Your task to perform on an android device: add a contact Image 0: 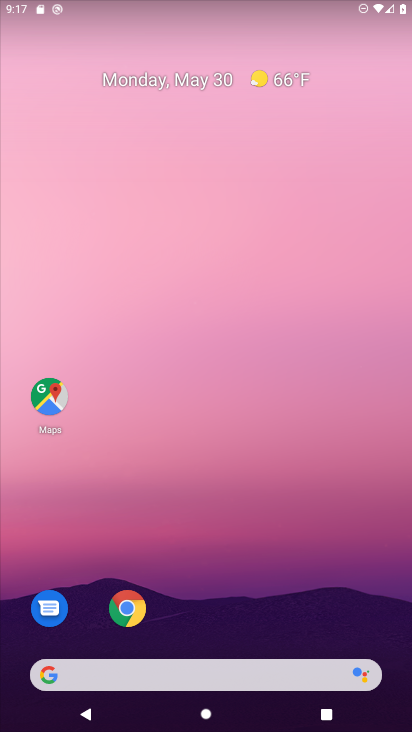
Step 0: drag from (223, 712) to (191, 0)
Your task to perform on an android device: add a contact Image 1: 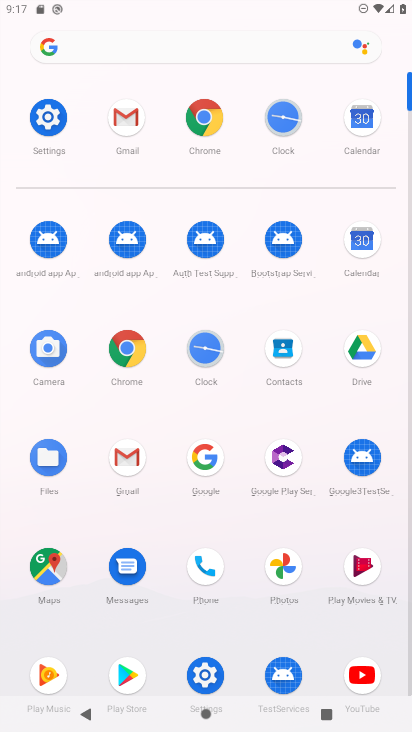
Step 1: click (285, 351)
Your task to perform on an android device: add a contact Image 2: 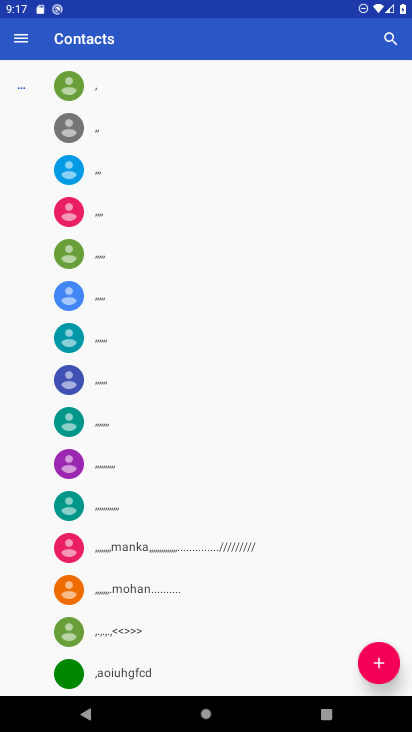
Step 2: click (379, 659)
Your task to perform on an android device: add a contact Image 3: 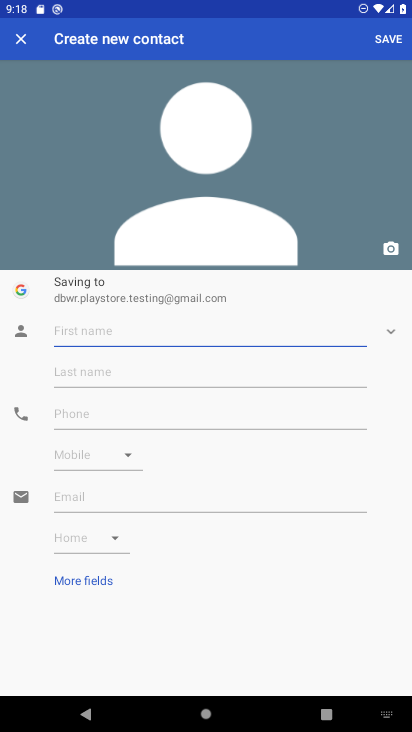
Step 3: type "tyson"
Your task to perform on an android device: add a contact Image 4: 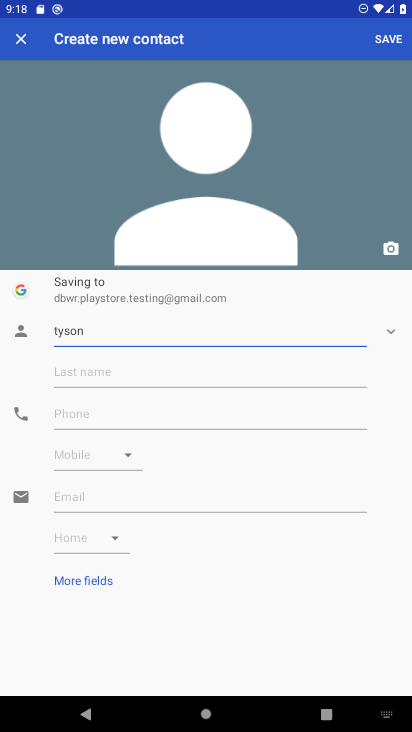
Step 4: click (100, 413)
Your task to perform on an android device: add a contact Image 5: 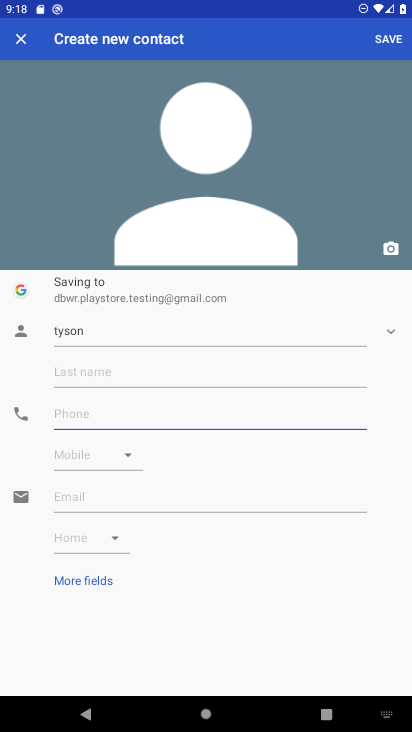
Step 5: type "6766"
Your task to perform on an android device: add a contact Image 6: 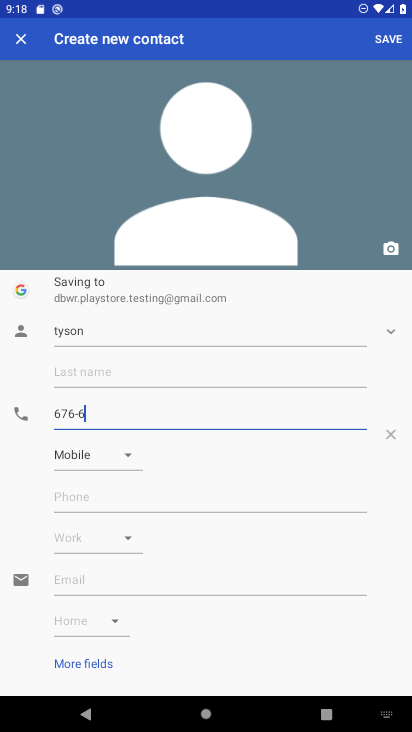
Step 6: click (400, 31)
Your task to perform on an android device: add a contact Image 7: 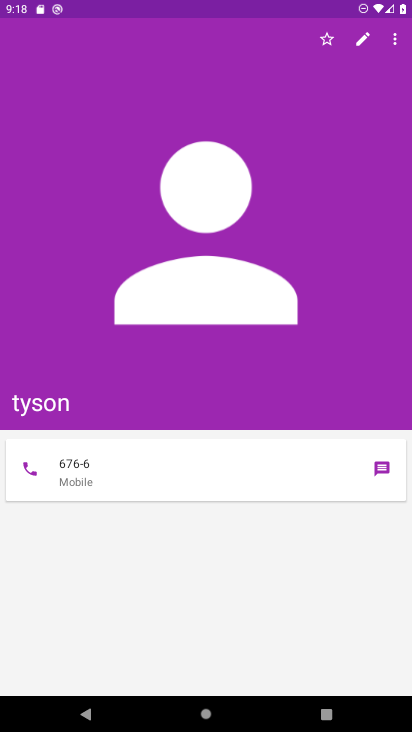
Step 7: task complete